Your task to perform on an android device: Search for hotels in Mexico city Image 0: 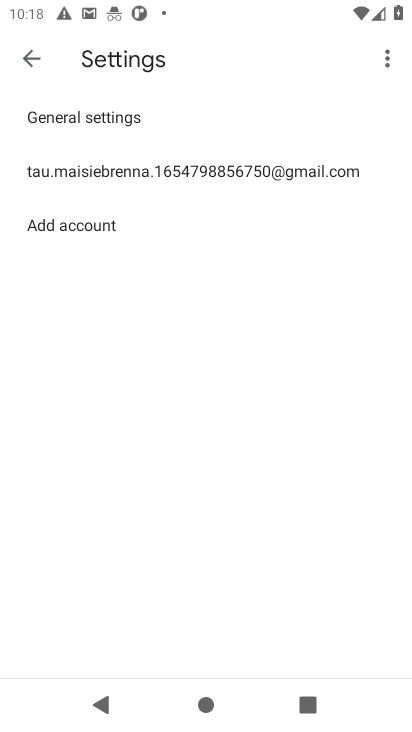
Step 0: press home button
Your task to perform on an android device: Search for hotels in Mexico city Image 1: 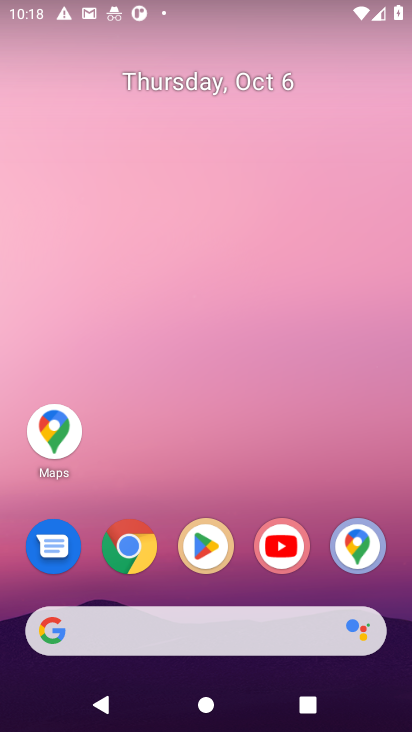
Step 1: click (125, 547)
Your task to perform on an android device: Search for hotels in Mexico city Image 2: 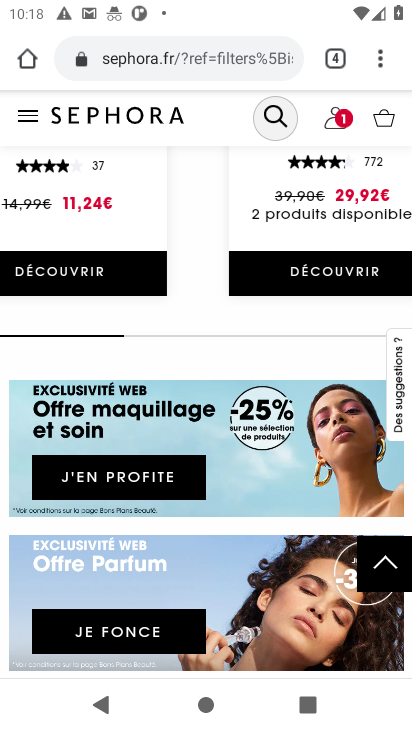
Step 2: click (188, 43)
Your task to perform on an android device: Search for hotels in Mexico city Image 3: 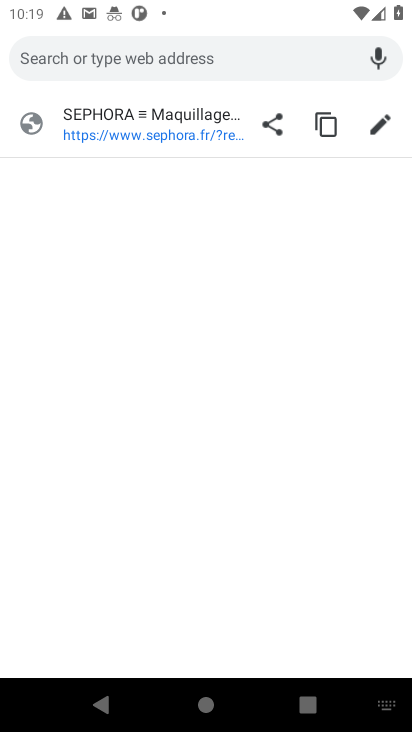
Step 3: type " hotels in Mexico city"
Your task to perform on an android device: Search for hotels in Mexico city Image 4: 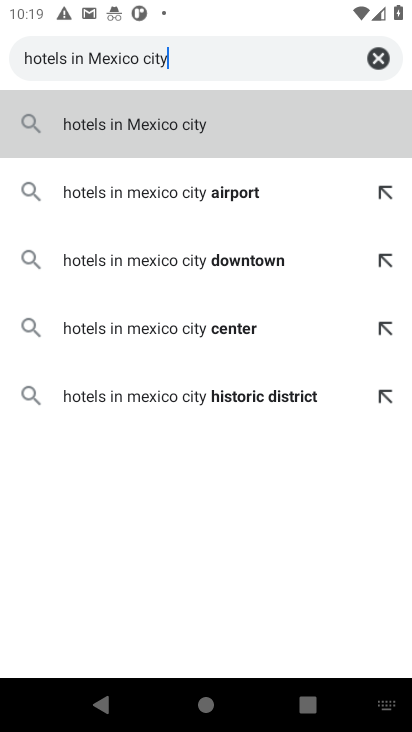
Step 4: click (133, 123)
Your task to perform on an android device: Search for hotels in Mexico city Image 5: 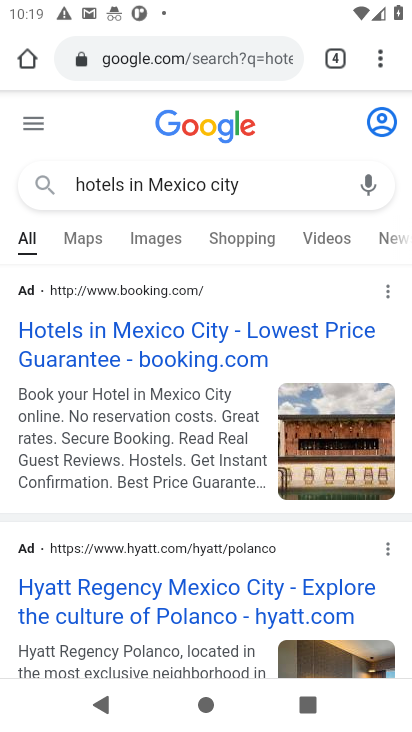
Step 5: click (108, 321)
Your task to perform on an android device: Search for hotels in Mexico city Image 6: 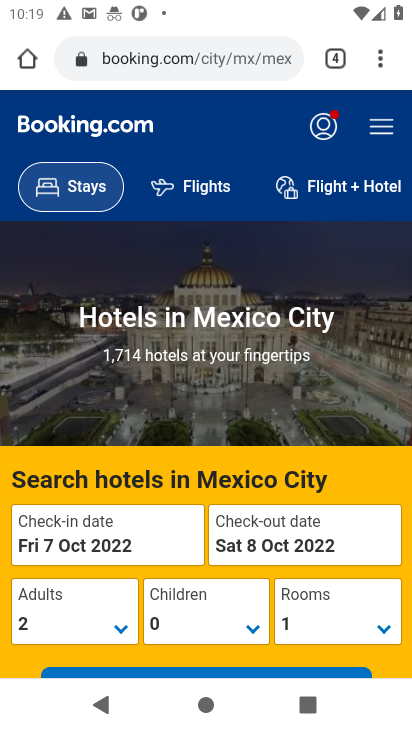
Step 6: drag from (211, 568) to (166, 230)
Your task to perform on an android device: Search for hotels in Mexico city Image 7: 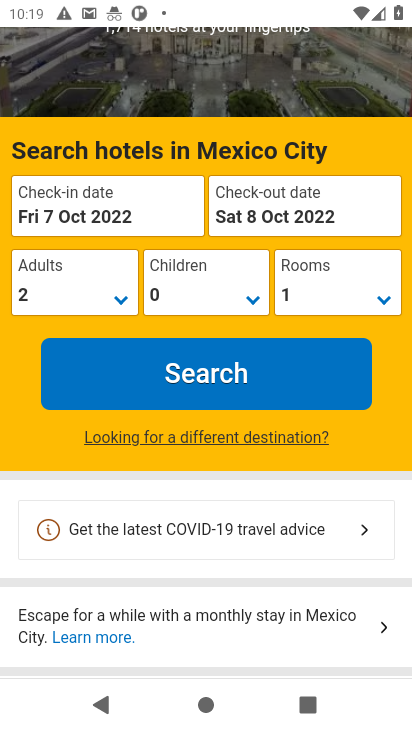
Step 7: click (201, 380)
Your task to perform on an android device: Search for hotels in Mexico city Image 8: 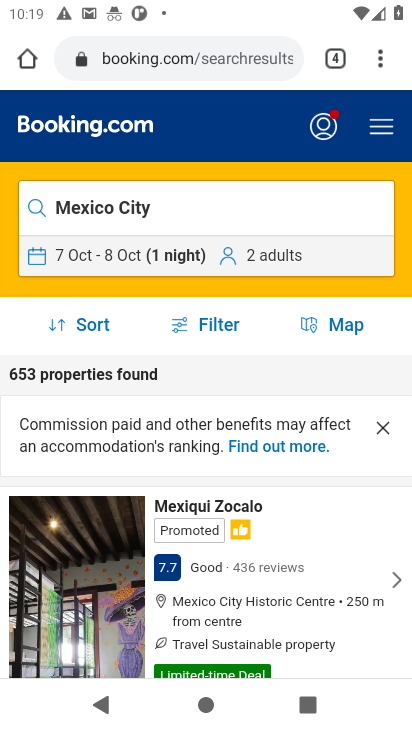
Step 8: task complete